Your task to perform on an android device: When is my next meeting? Image 0: 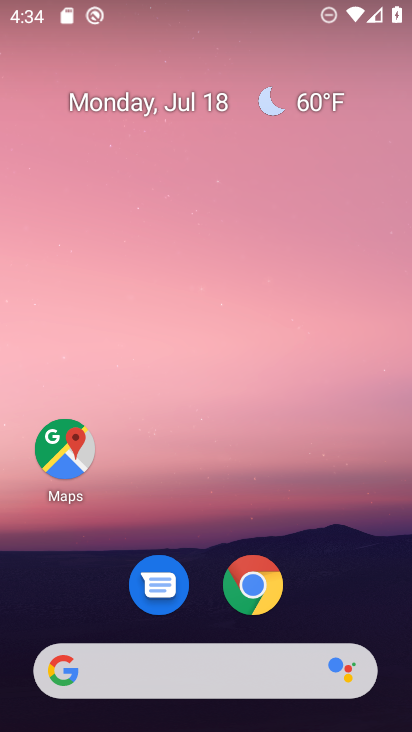
Step 0: drag from (287, 513) to (237, 0)
Your task to perform on an android device: When is my next meeting? Image 1: 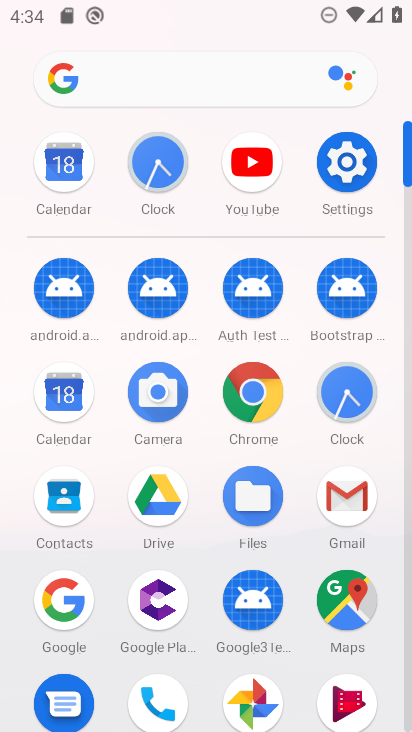
Step 1: click (56, 176)
Your task to perform on an android device: When is my next meeting? Image 2: 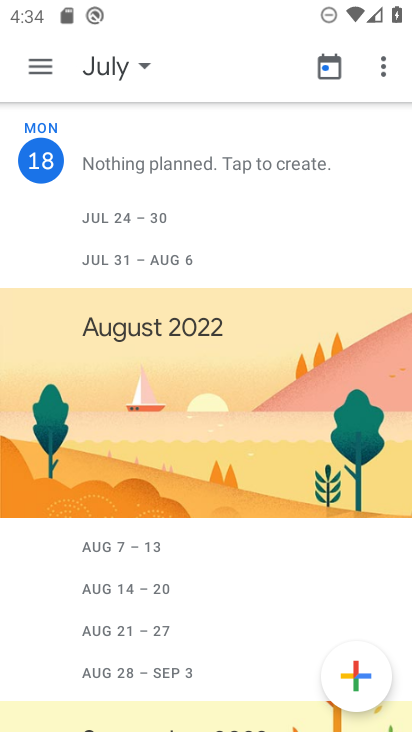
Step 2: task complete